Your task to perform on an android device: open a bookmark in the chrome app Image 0: 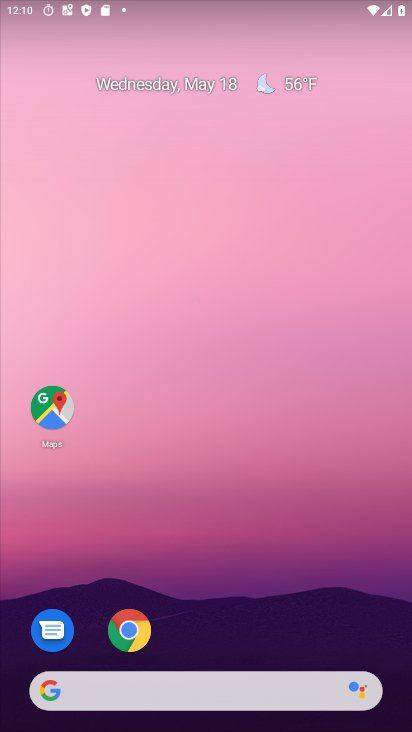
Step 0: click (129, 628)
Your task to perform on an android device: open a bookmark in the chrome app Image 1: 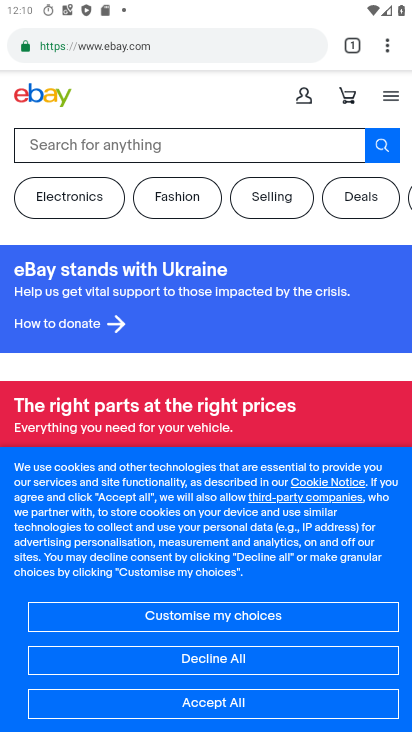
Step 1: click (390, 44)
Your task to perform on an android device: open a bookmark in the chrome app Image 2: 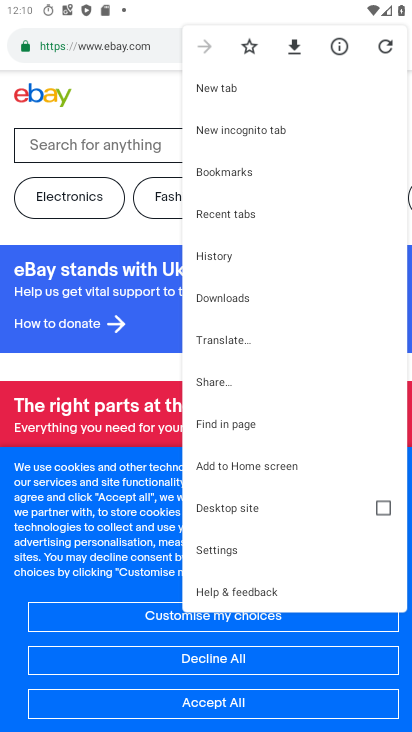
Step 2: click (235, 175)
Your task to perform on an android device: open a bookmark in the chrome app Image 3: 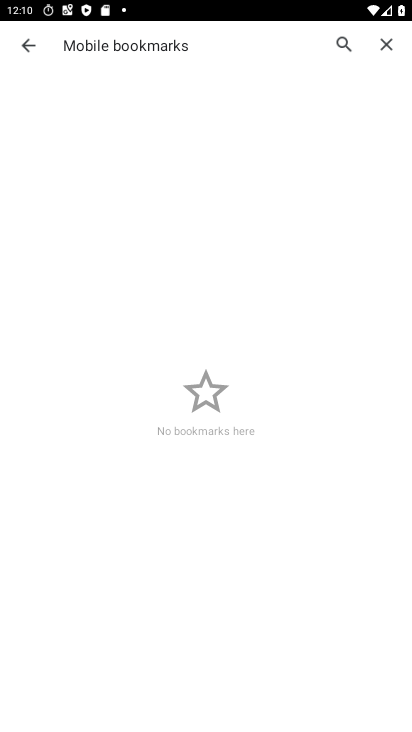
Step 3: task complete